Your task to perform on an android device: Open my contact list Image 0: 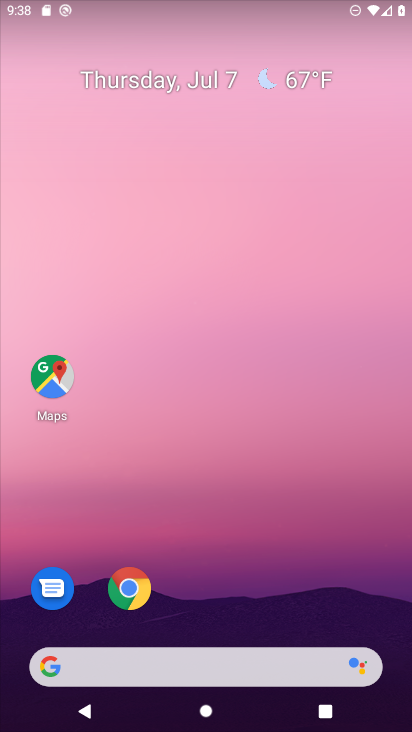
Step 0: drag from (251, 625) to (278, 71)
Your task to perform on an android device: Open my contact list Image 1: 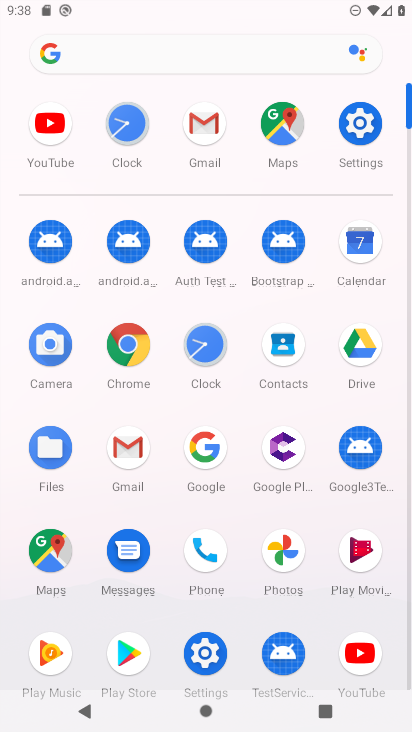
Step 1: click (283, 341)
Your task to perform on an android device: Open my contact list Image 2: 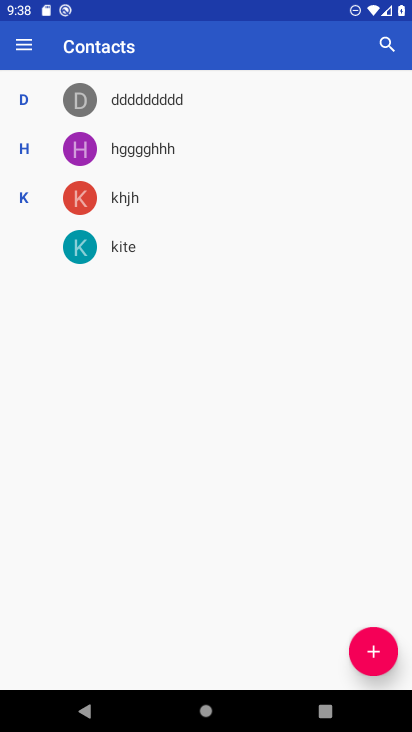
Step 2: task complete